Your task to perform on an android device: check battery use Image 0: 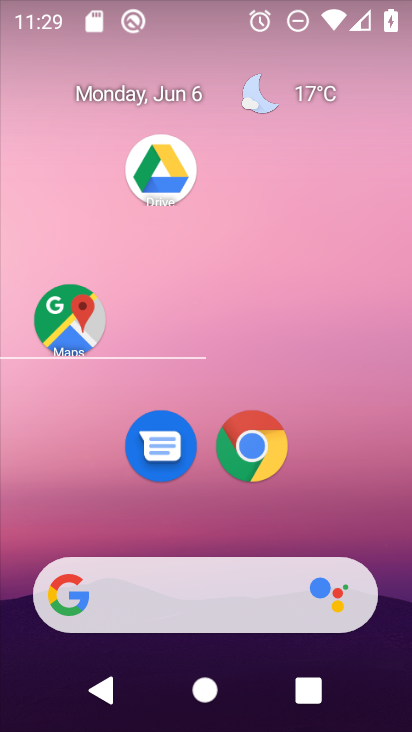
Step 0: click (201, 573)
Your task to perform on an android device: check battery use Image 1: 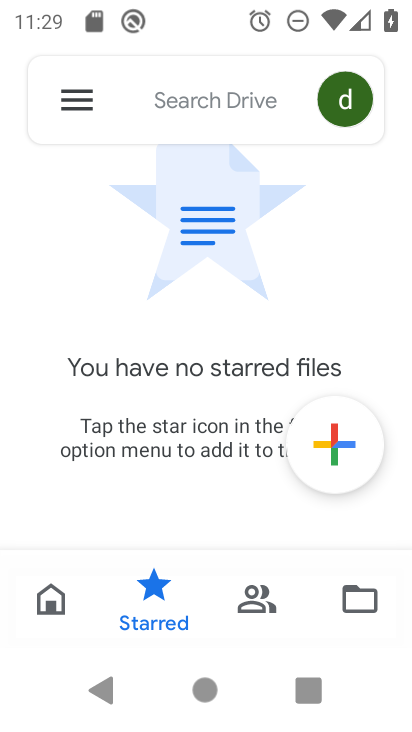
Step 1: drag from (232, 17) to (222, 537)
Your task to perform on an android device: check battery use Image 2: 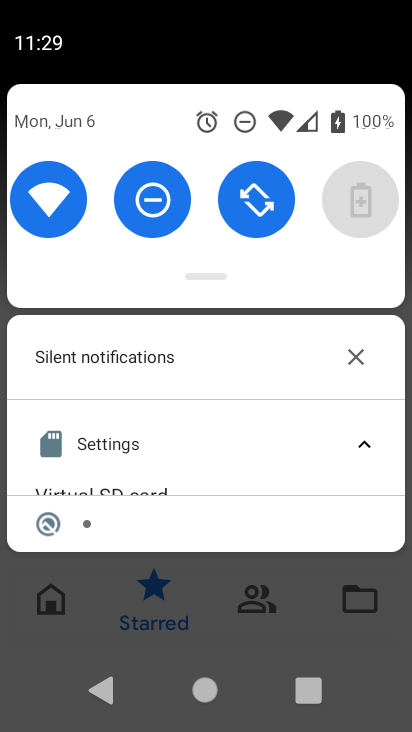
Step 2: drag from (183, 141) to (242, 489)
Your task to perform on an android device: check battery use Image 3: 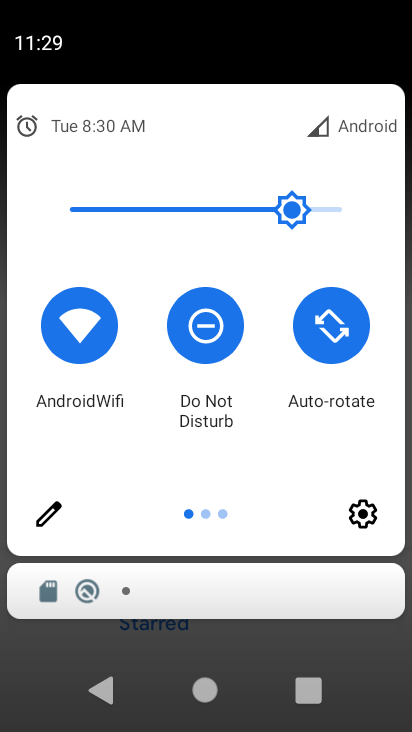
Step 3: drag from (367, 459) to (56, 436)
Your task to perform on an android device: check battery use Image 4: 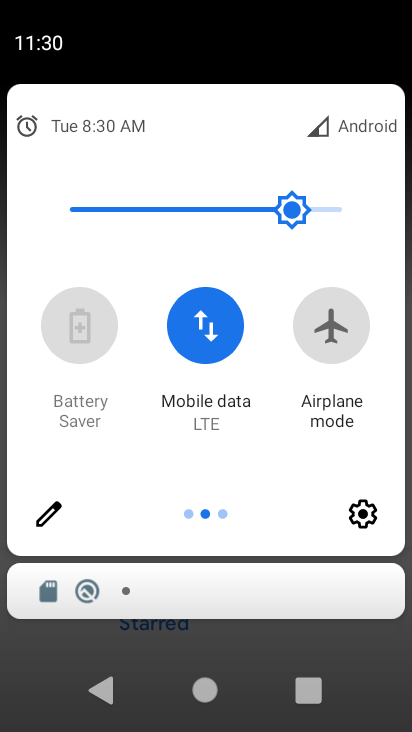
Step 4: click (83, 307)
Your task to perform on an android device: check battery use Image 5: 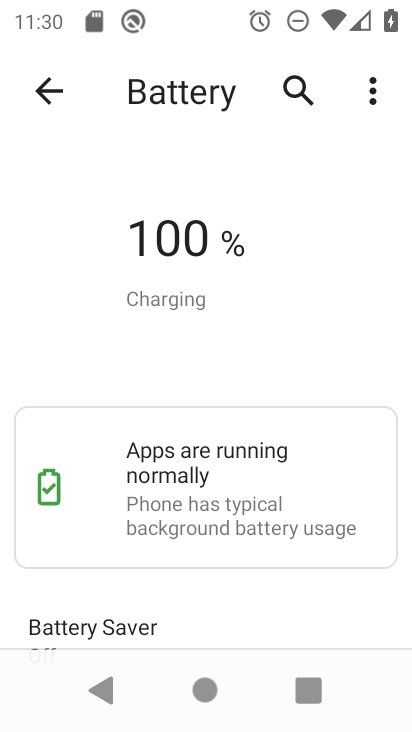
Step 5: click (386, 81)
Your task to perform on an android device: check battery use Image 6: 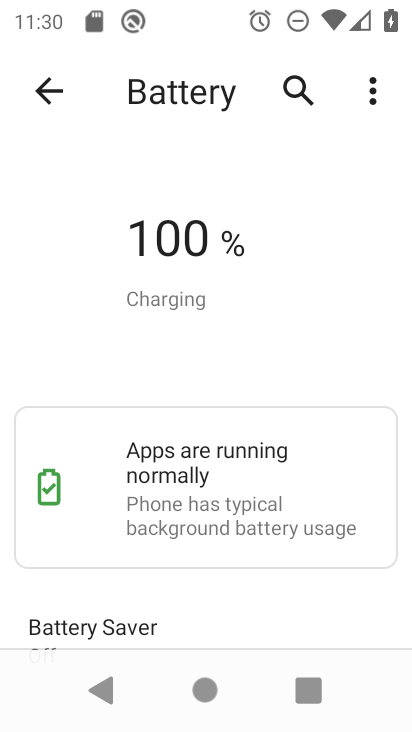
Step 6: click (374, 88)
Your task to perform on an android device: check battery use Image 7: 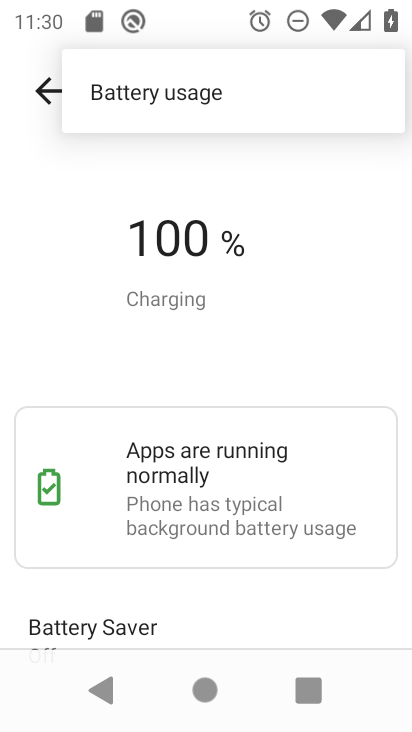
Step 7: click (254, 82)
Your task to perform on an android device: check battery use Image 8: 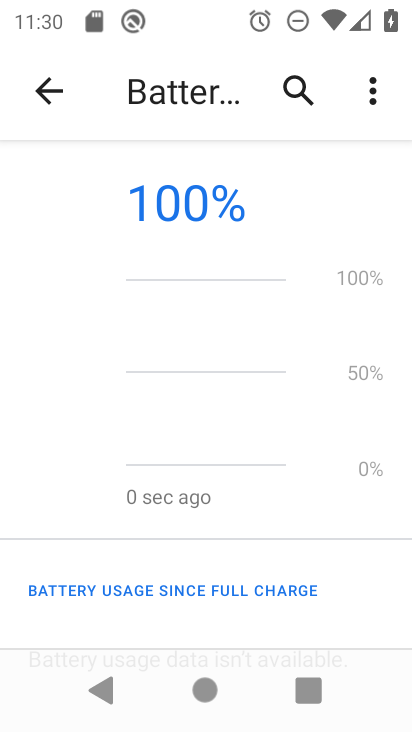
Step 8: task complete